Your task to perform on an android device: uninstall "Microsoft Outlook" Image 0: 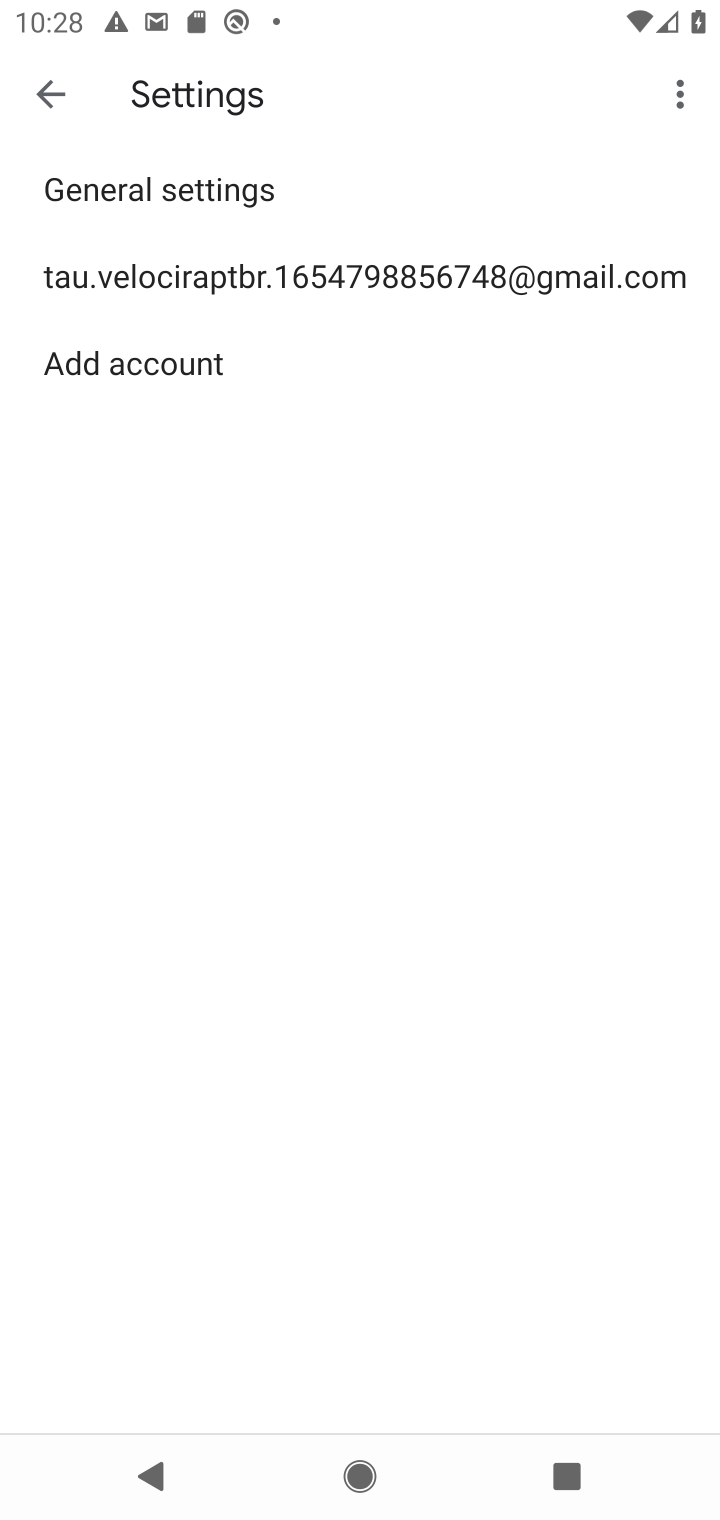
Step 0: press home button
Your task to perform on an android device: uninstall "Microsoft Outlook" Image 1: 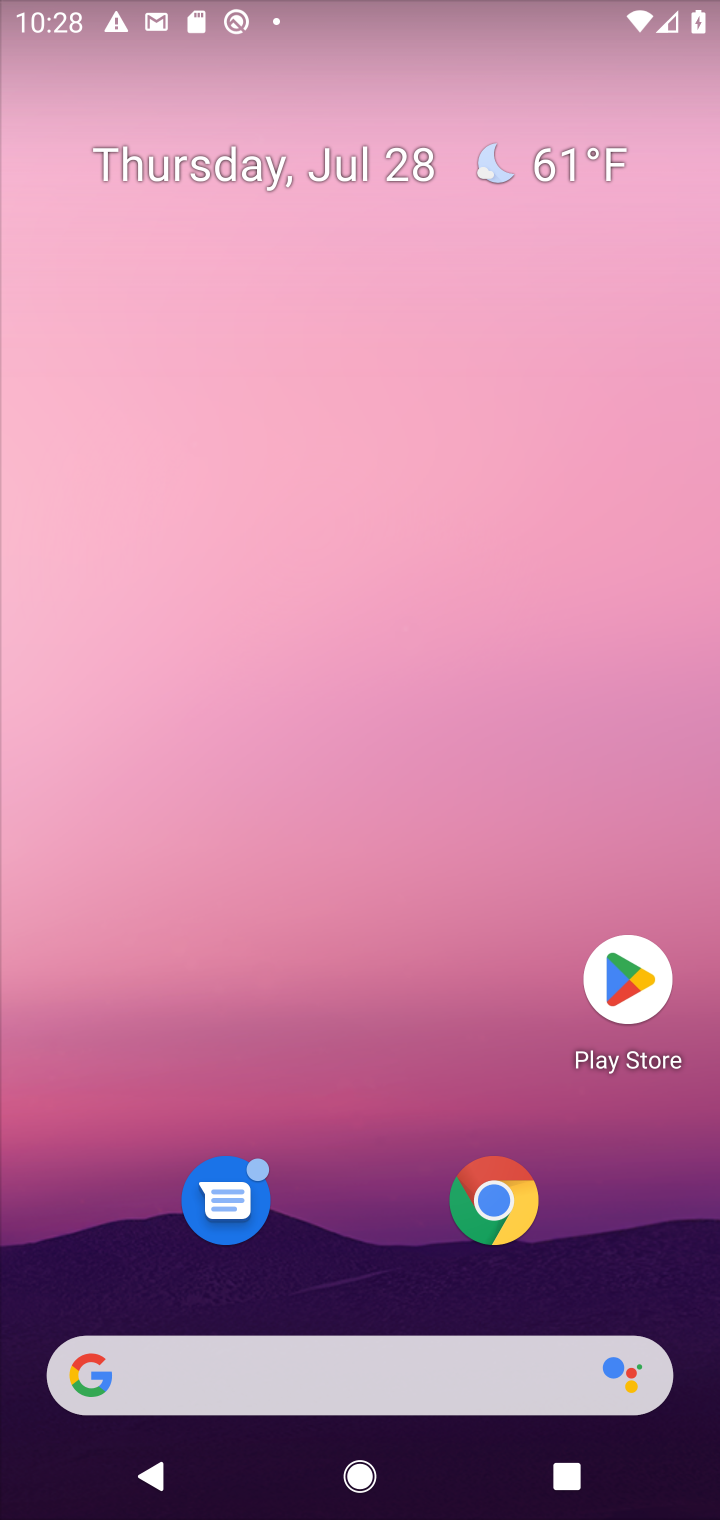
Step 1: click (627, 974)
Your task to perform on an android device: uninstall "Microsoft Outlook" Image 2: 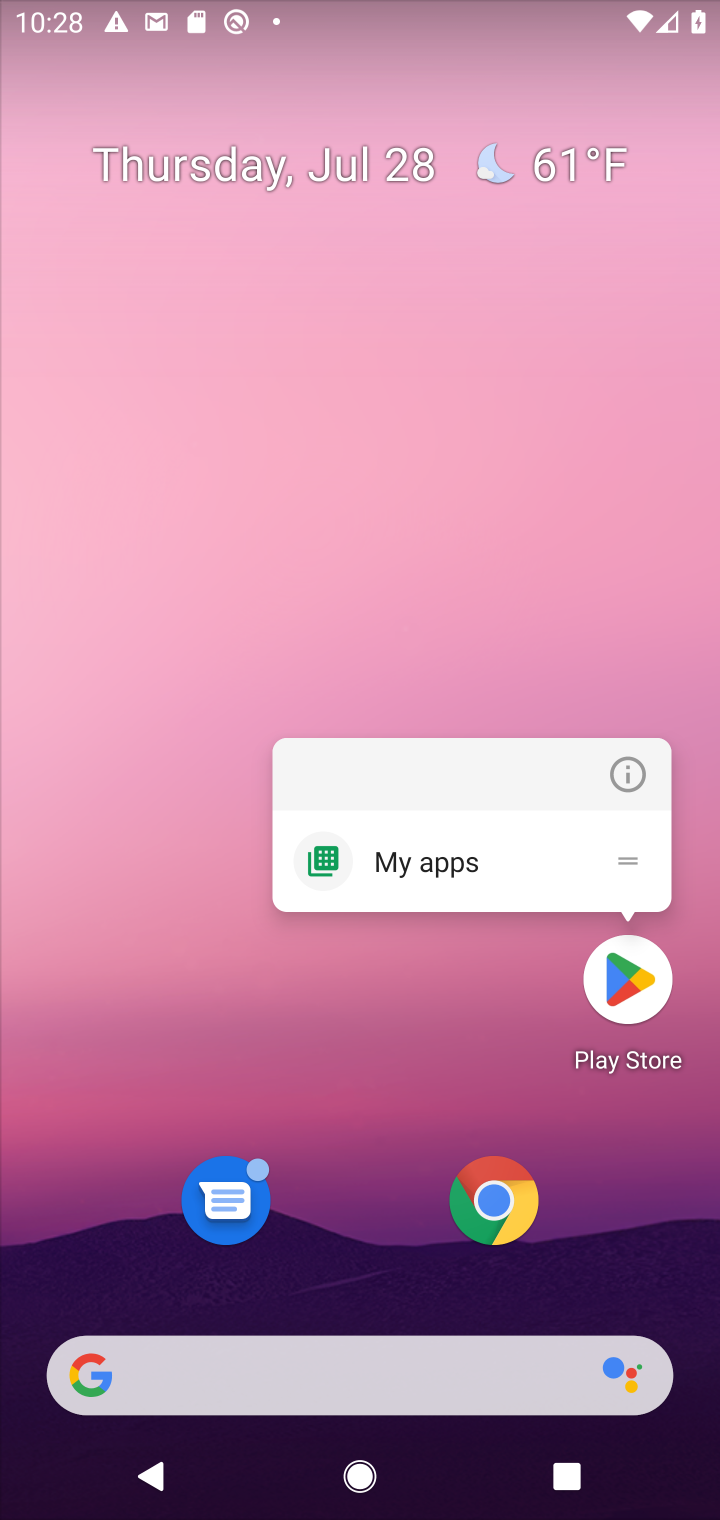
Step 2: click (630, 974)
Your task to perform on an android device: uninstall "Microsoft Outlook" Image 3: 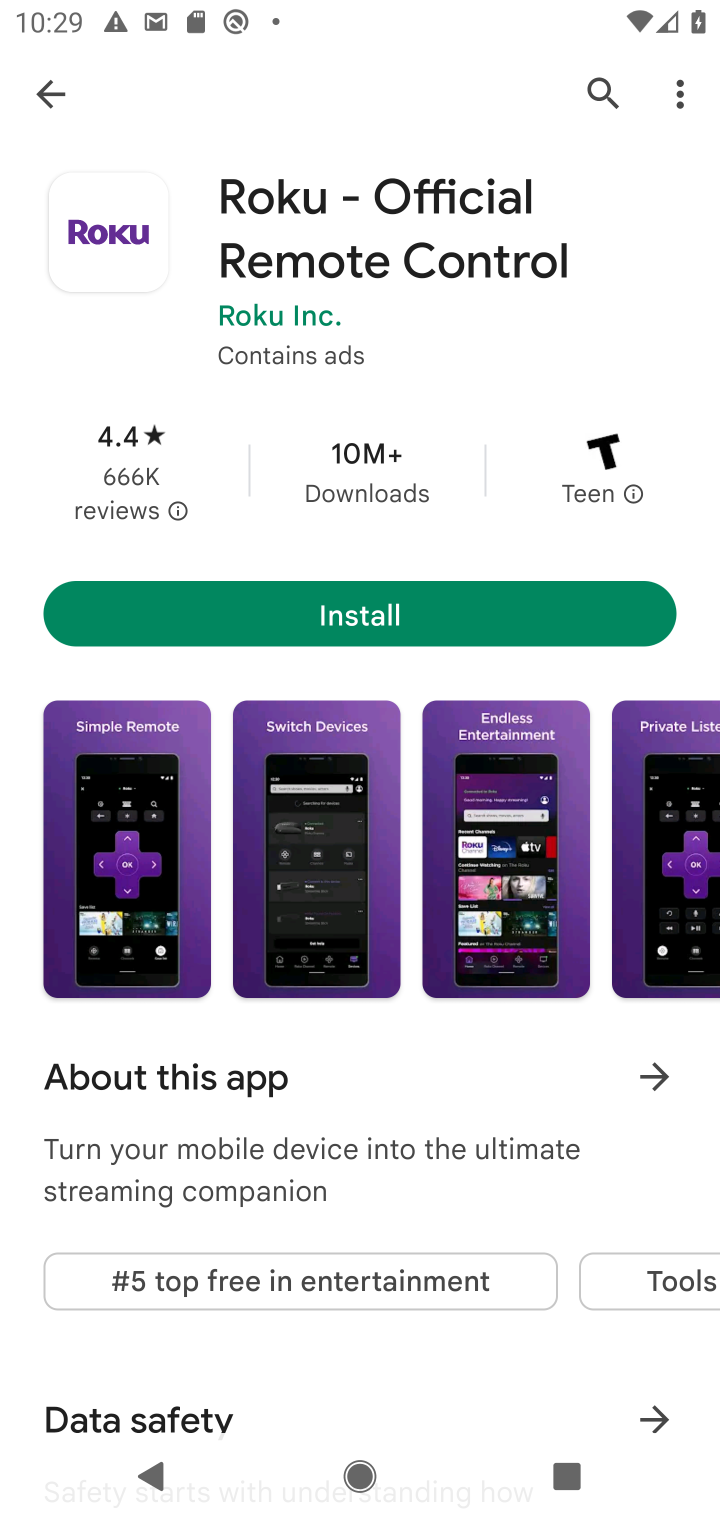
Step 3: click (597, 81)
Your task to perform on an android device: uninstall "Microsoft Outlook" Image 4: 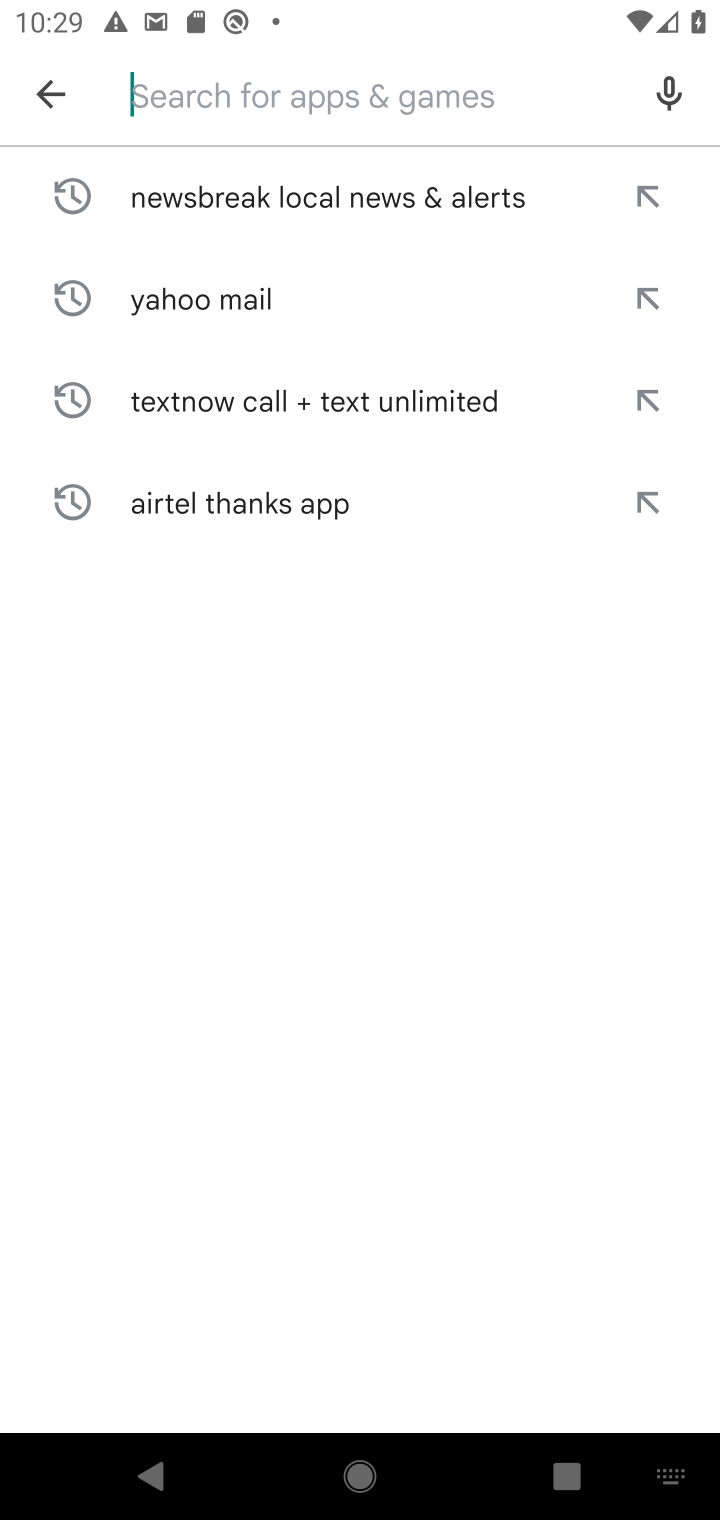
Step 4: type "Microsoft Outlook"
Your task to perform on an android device: uninstall "Microsoft Outlook" Image 5: 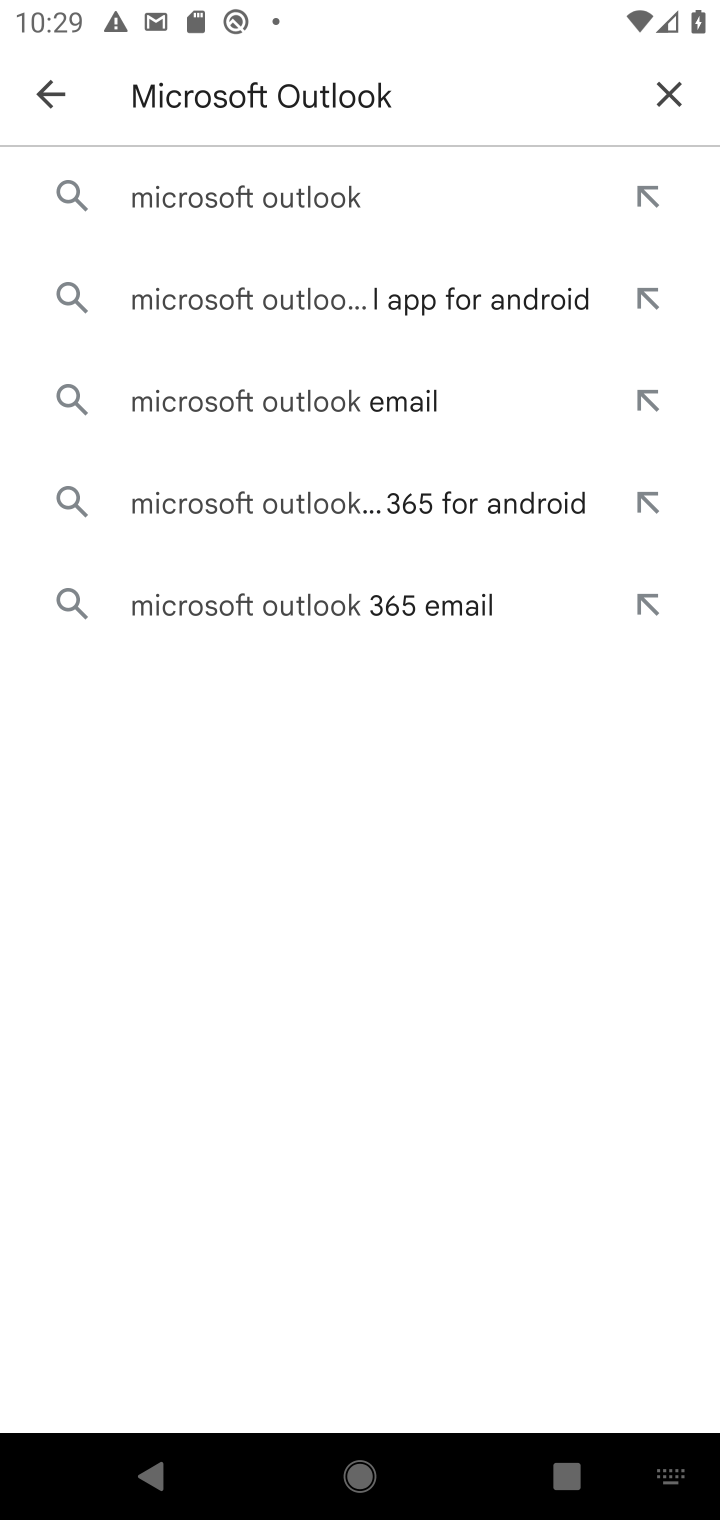
Step 5: click (216, 197)
Your task to perform on an android device: uninstall "Microsoft Outlook" Image 6: 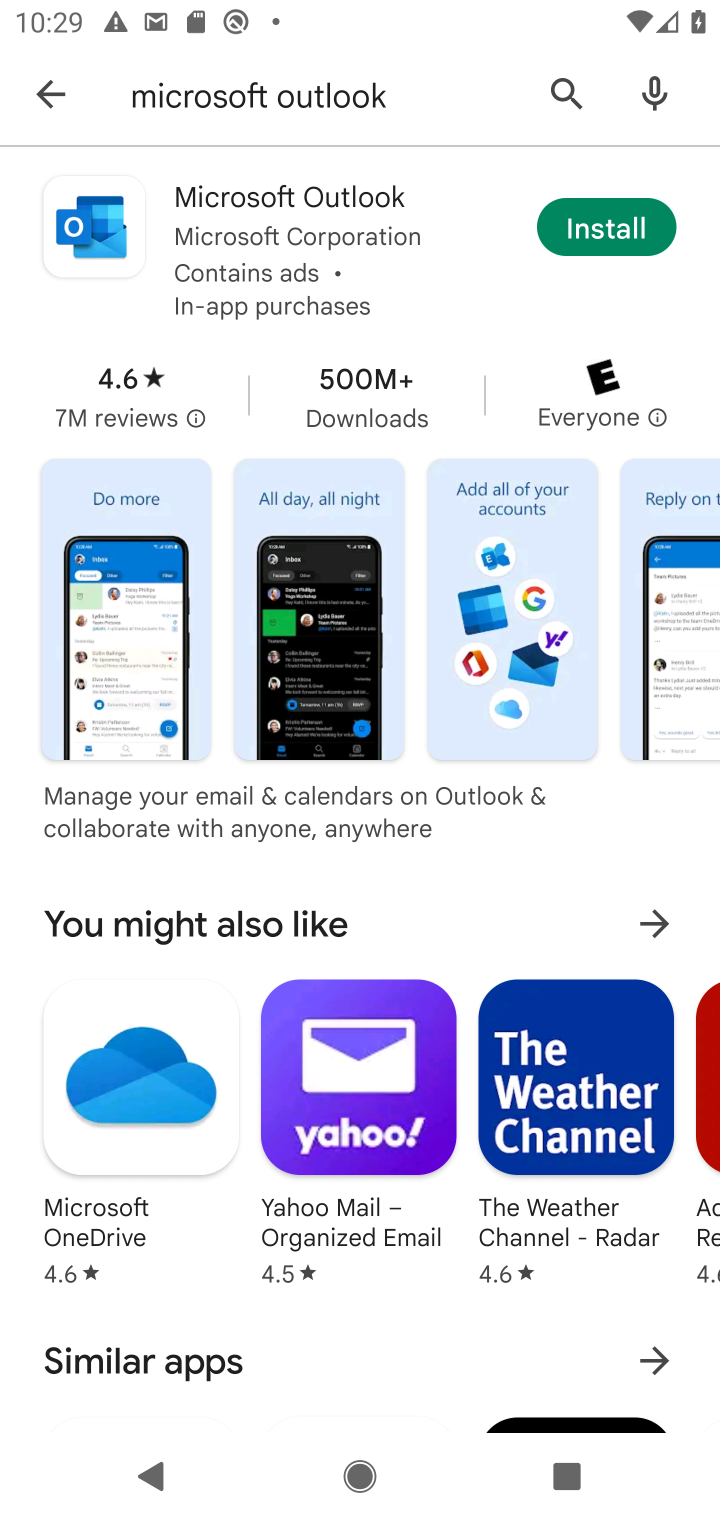
Step 6: task complete